Your task to perform on an android device: install app "Skype" Image 0: 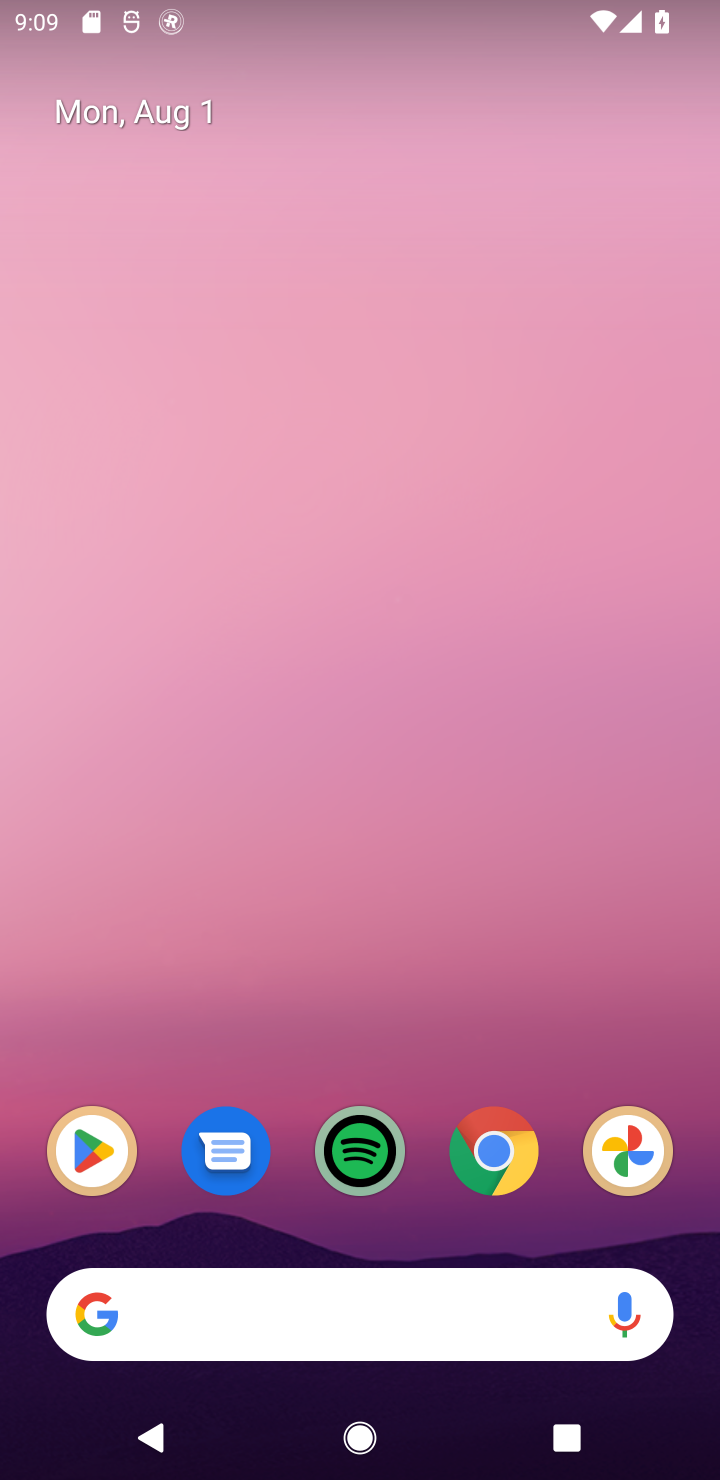
Step 0: click (124, 1179)
Your task to perform on an android device: install app "Skype" Image 1: 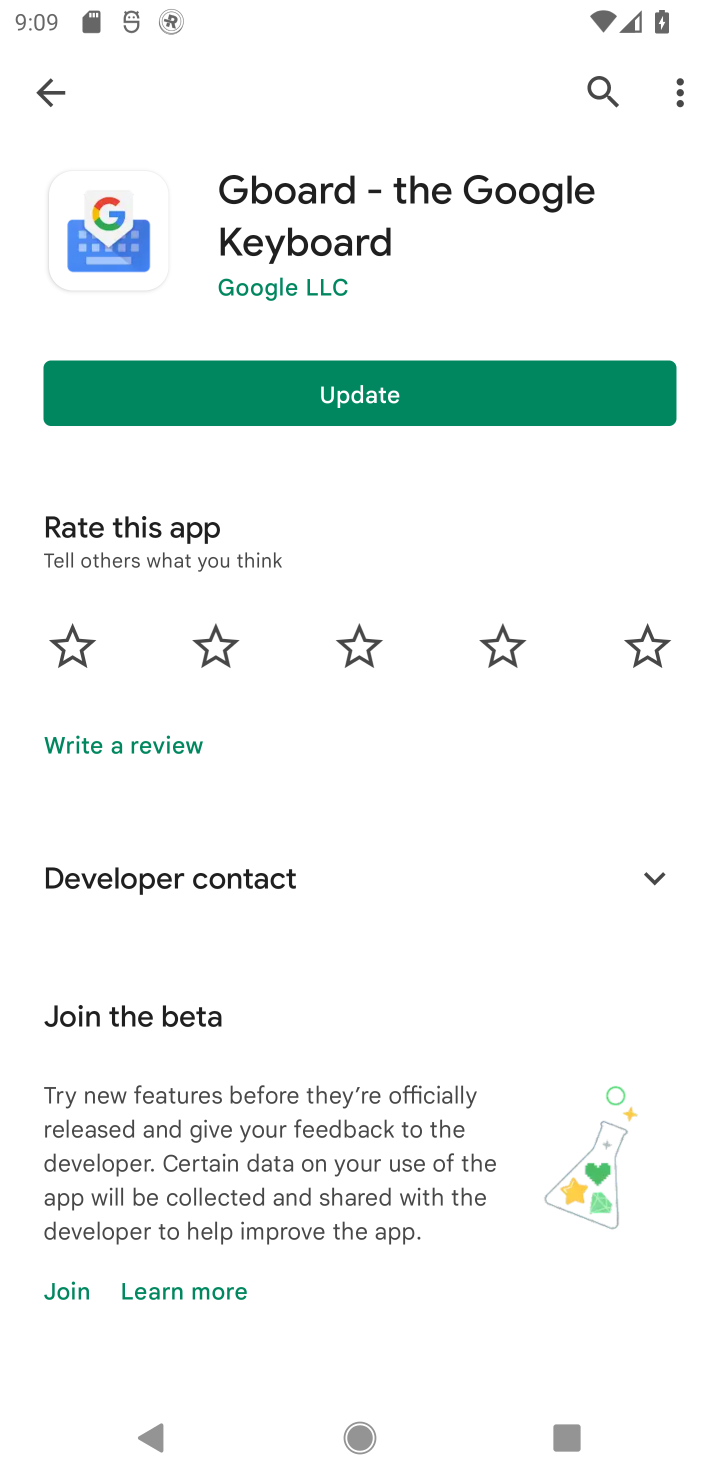
Step 1: click (602, 95)
Your task to perform on an android device: install app "Skype" Image 2: 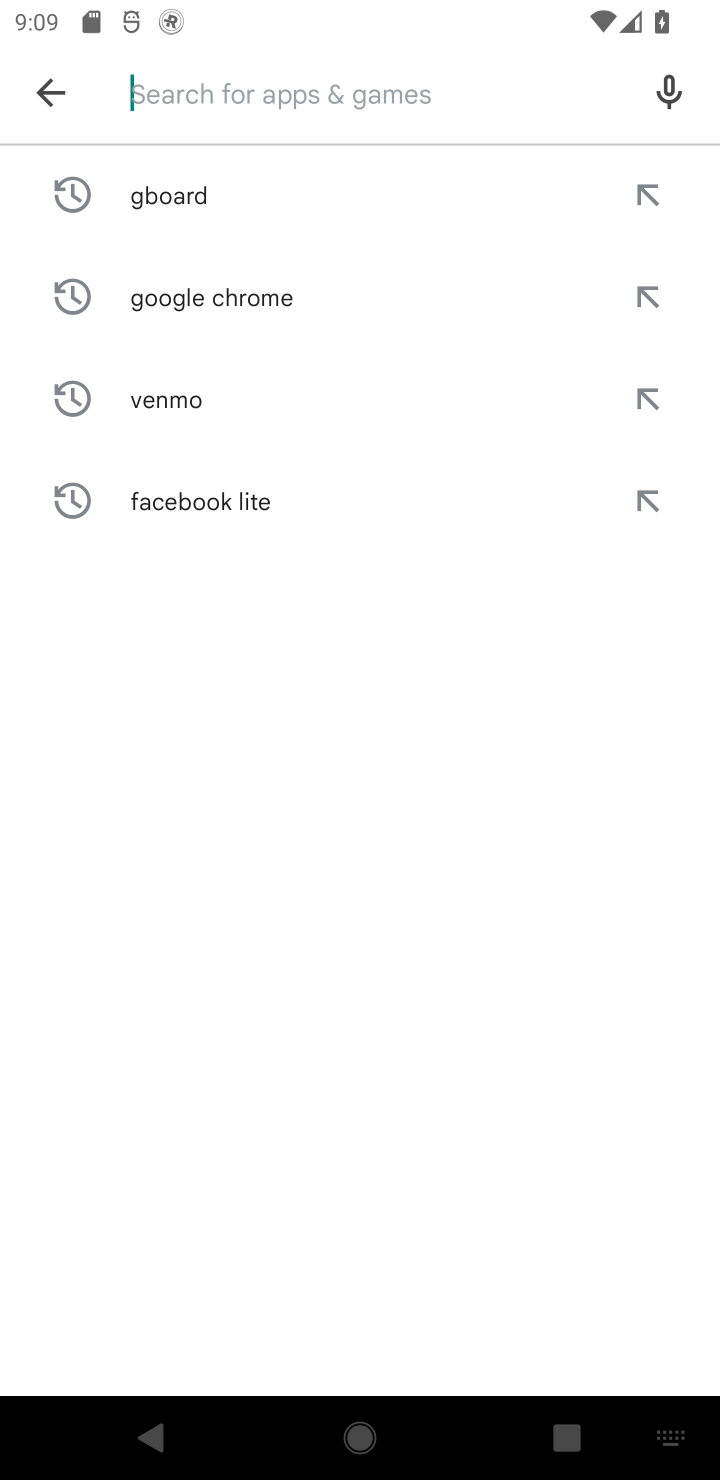
Step 2: type "Skype"
Your task to perform on an android device: install app "Skype" Image 3: 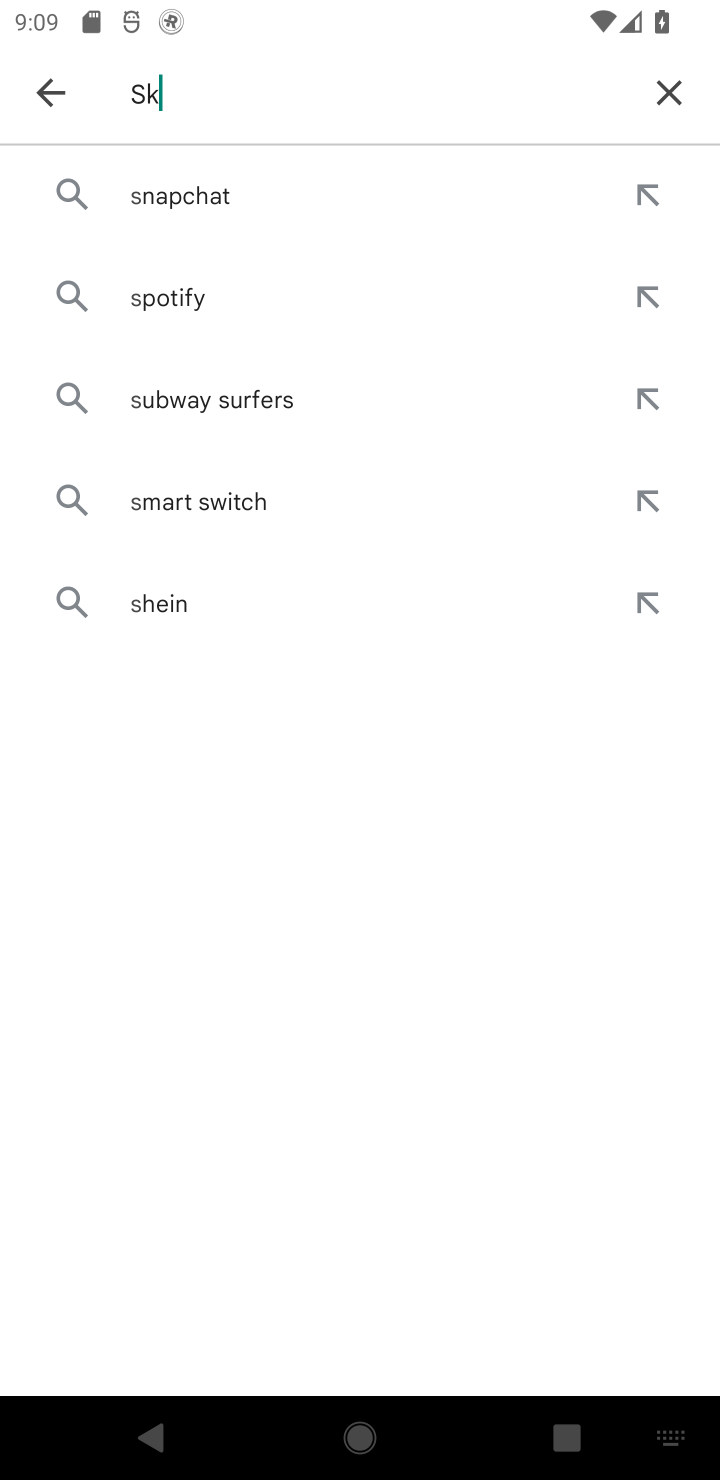
Step 3: type ""
Your task to perform on an android device: install app "Skype" Image 4: 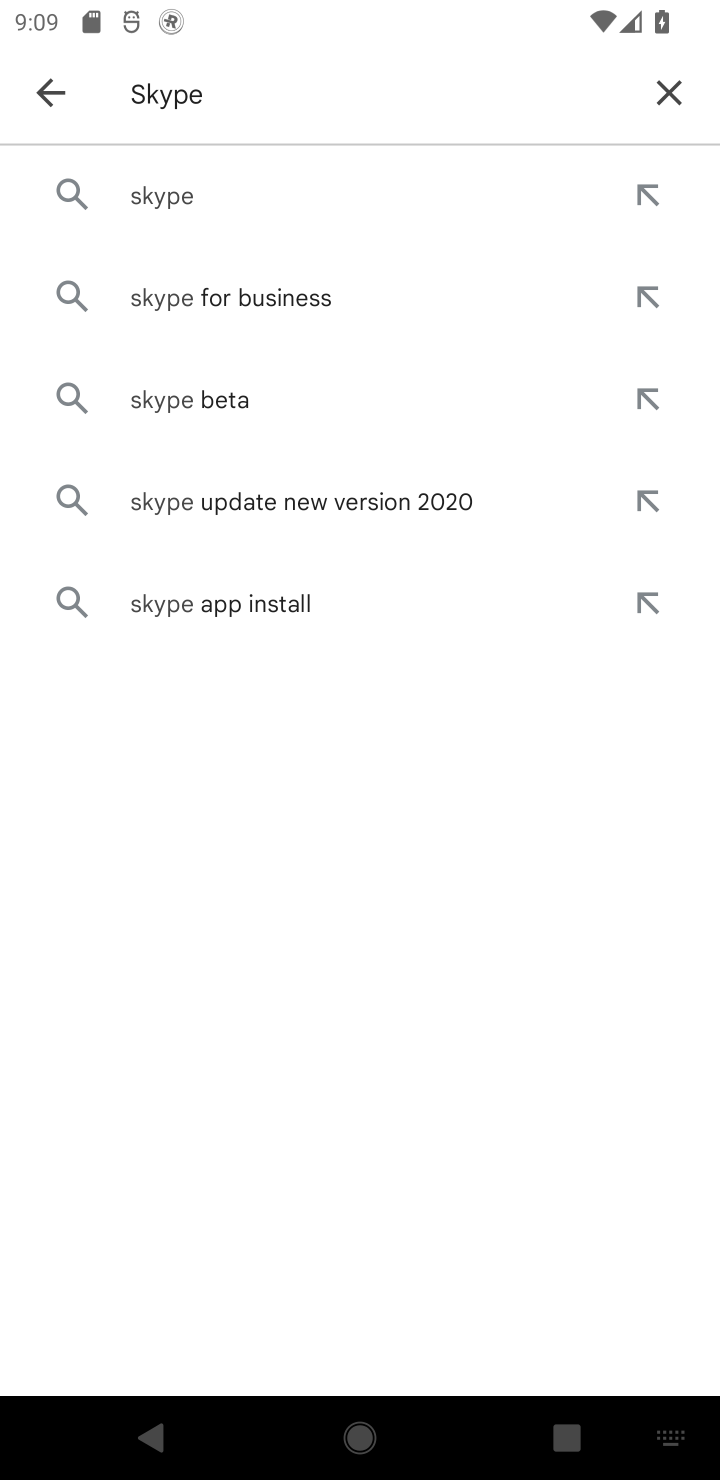
Step 4: click (190, 189)
Your task to perform on an android device: install app "Skype" Image 5: 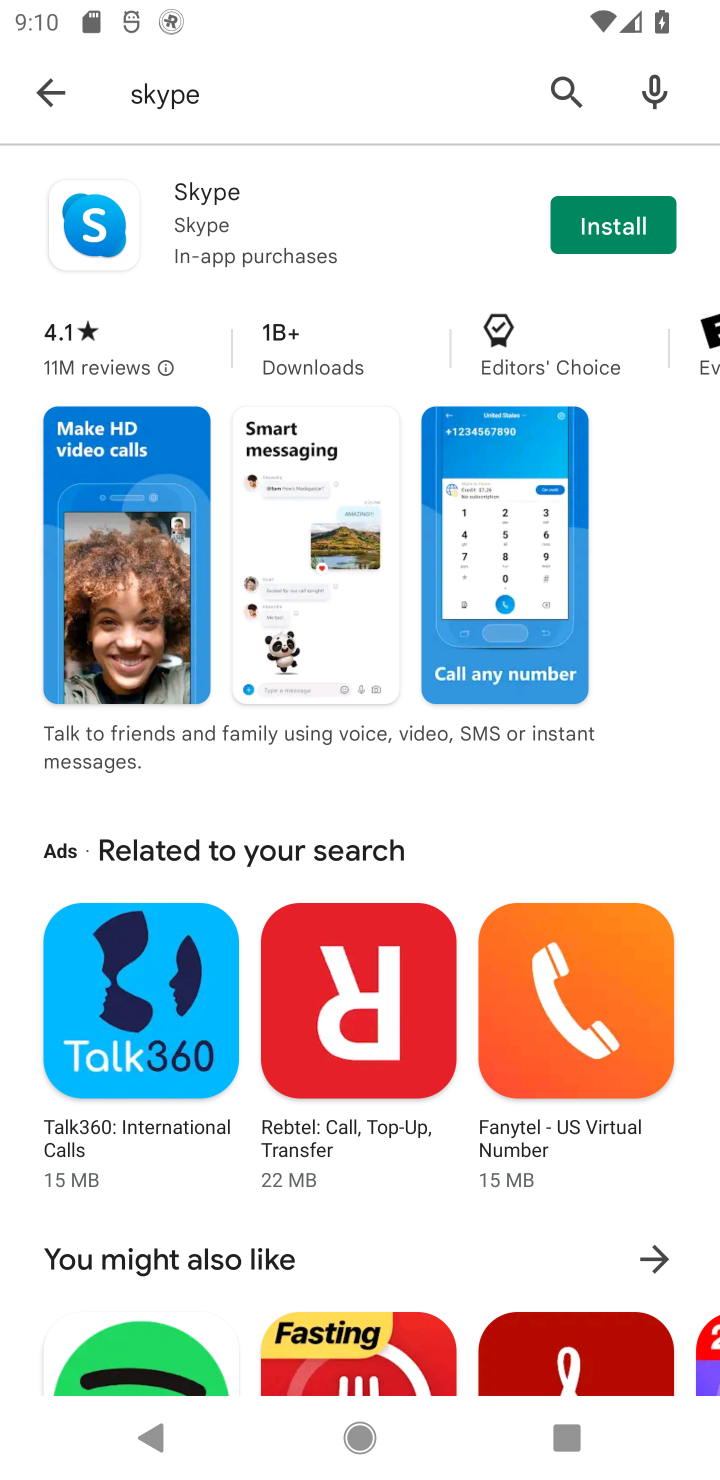
Step 5: click (595, 235)
Your task to perform on an android device: install app "Skype" Image 6: 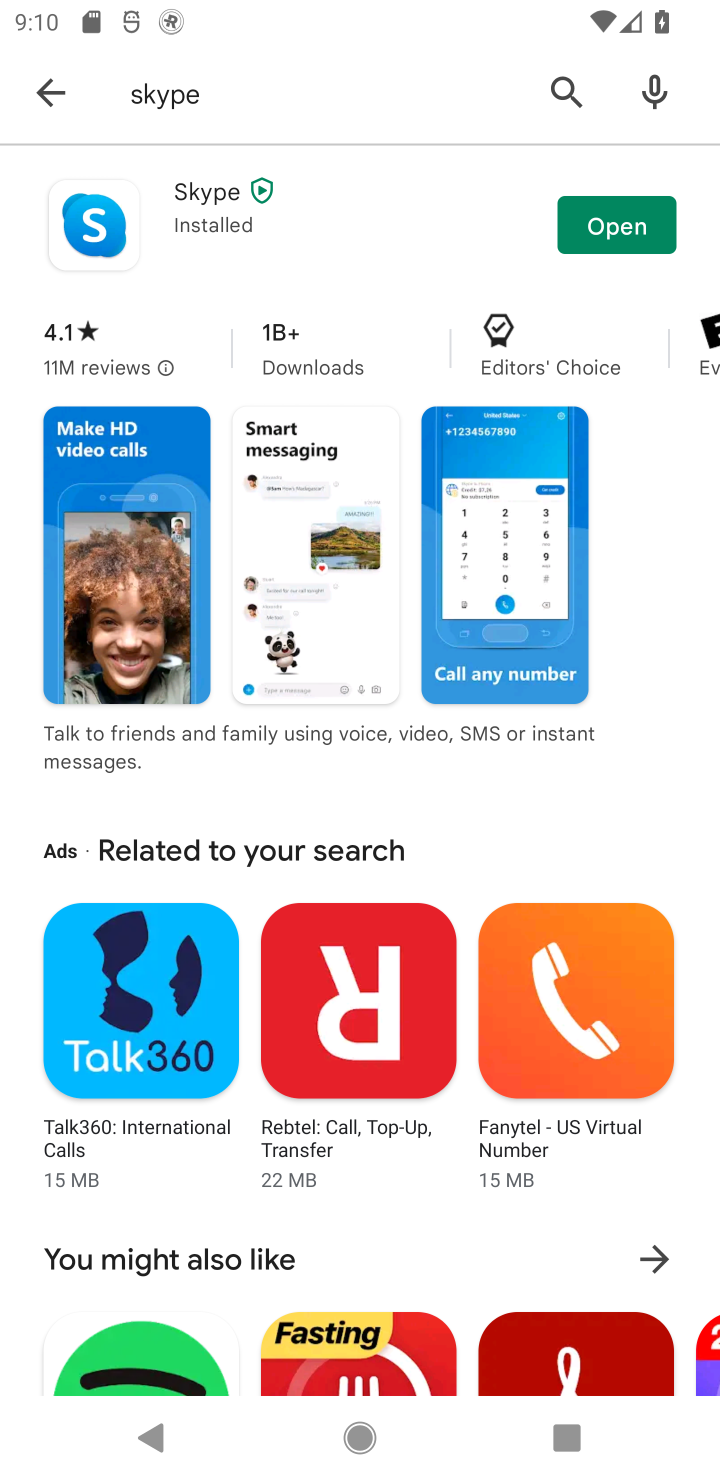
Step 6: task complete